Your task to perform on an android device: Open the calendar and show me this week's events Image 0: 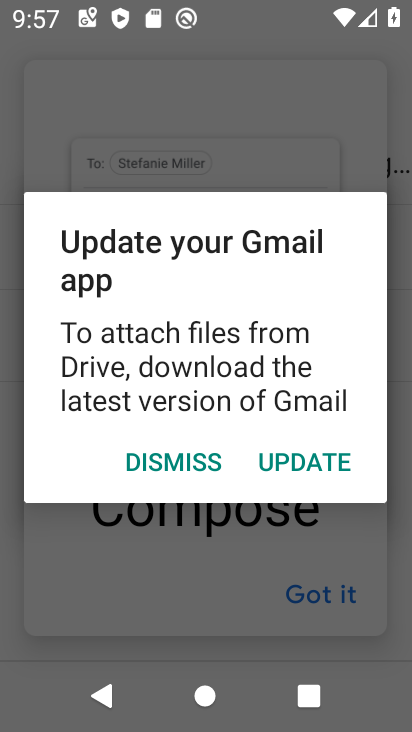
Step 0: press home button
Your task to perform on an android device: Open the calendar and show me this week's events Image 1: 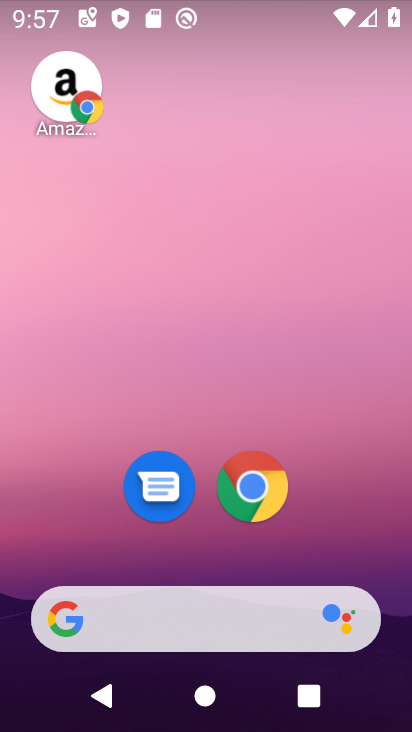
Step 1: drag from (329, 542) to (278, 1)
Your task to perform on an android device: Open the calendar and show me this week's events Image 2: 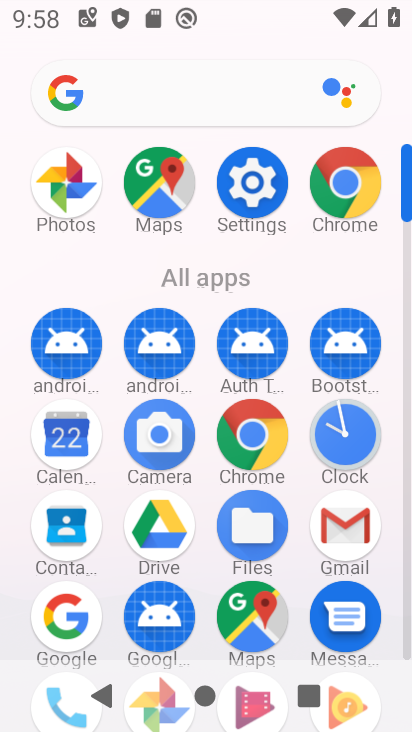
Step 2: click (67, 441)
Your task to perform on an android device: Open the calendar and show me this week's events Image 3: 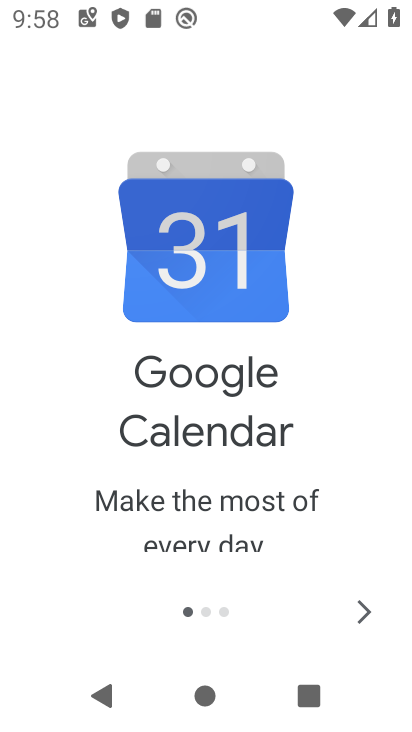
Step 3: click (366, 610)
Your task to perform on an android device: Open the calendar and show me this week's events Image 4: 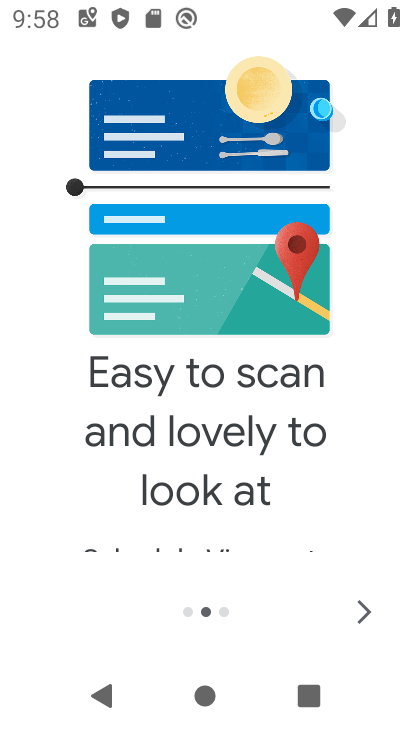
Step 4: click (366, 610)
Your task to perform on an android device: Open the calendar and show me this week's events Image 5: 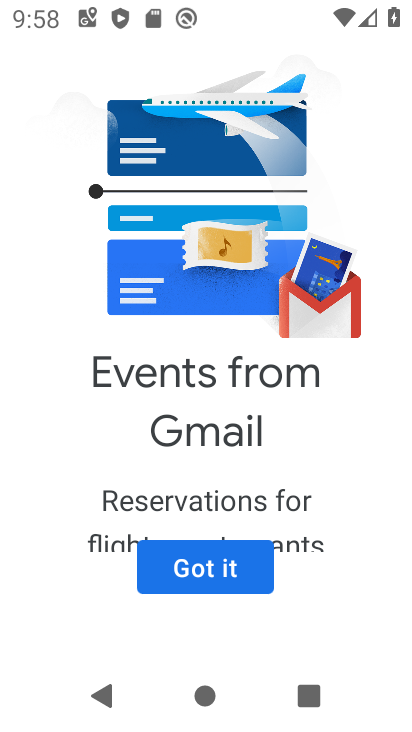
Step 5: click (185, 569)
Your task to perform on an android device: Open the calendar and show me this week's events Image 6: 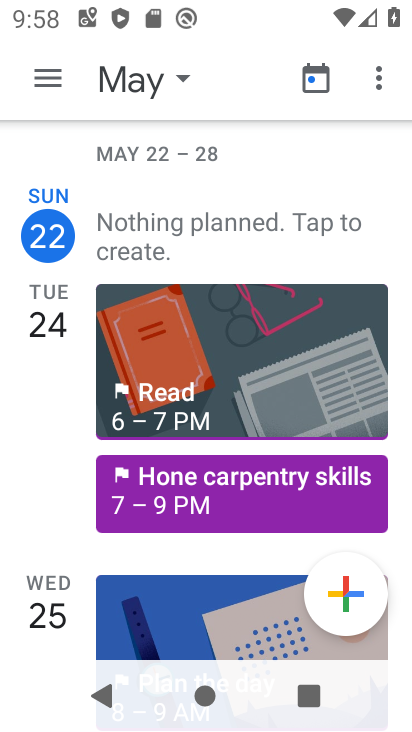
Step 6: click (184, 81)
Your task to perform on an android device: Open the calendar and show me this week's events Image 7: 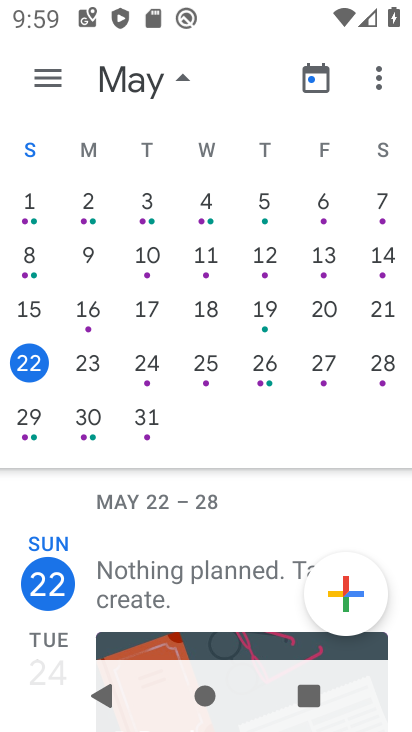
Step 7: click (51, 85)
Your task to perform on an android device: Open the calendar and show me this week's events Image 8: 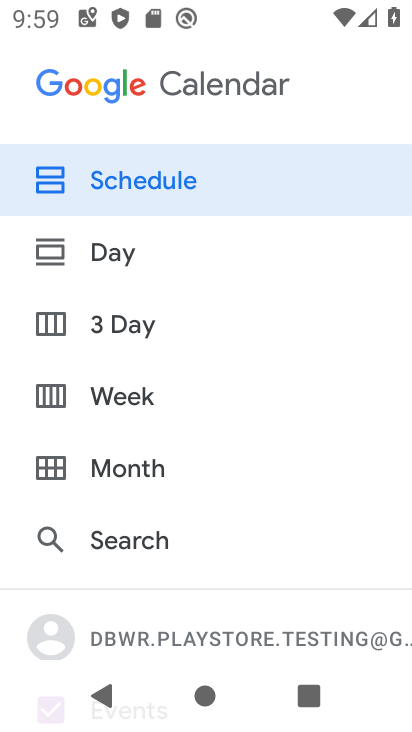
Step 8: click (165, 185)
Your task to perform on an android device: Open the calendar and show me this week's events Image 9: 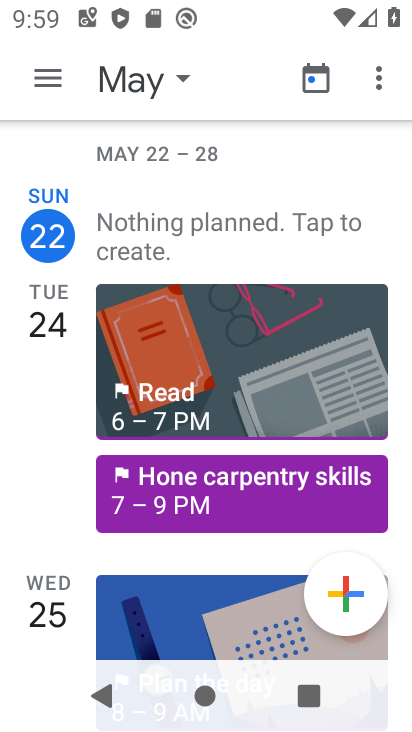
Step 9: task complete